Your task to perform on an android device: Is it going to rain this weekend? Image 0: 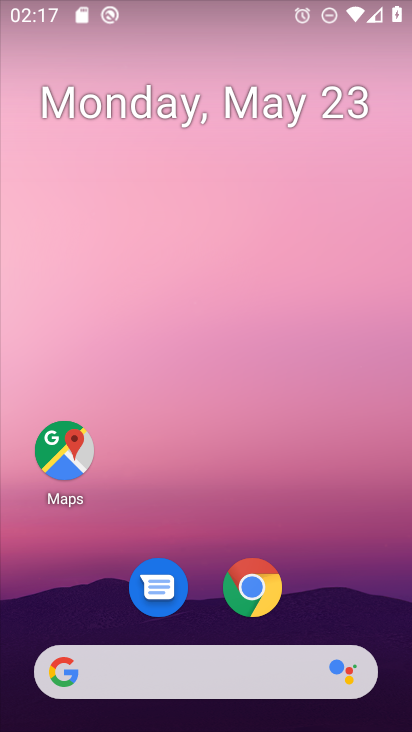
Step 0: drag from (338, 610) to (357, 209)
Your task to perform on an android device: Is it going to rain this weekend? Image 1: 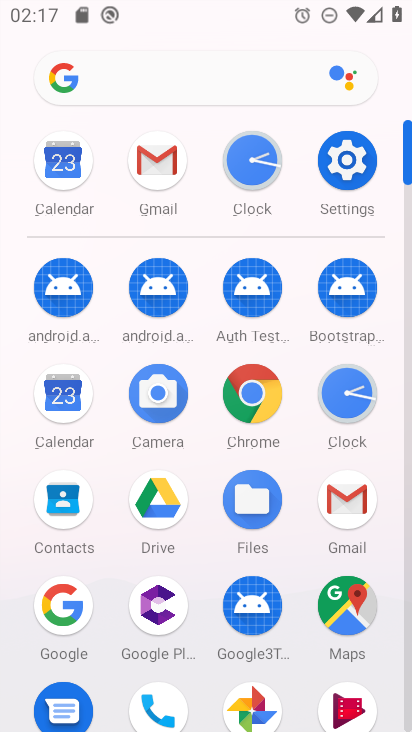
Step 1: click (75, 193)
Your task to perform on an android device: Is it going to rain this weekend? Image 2: 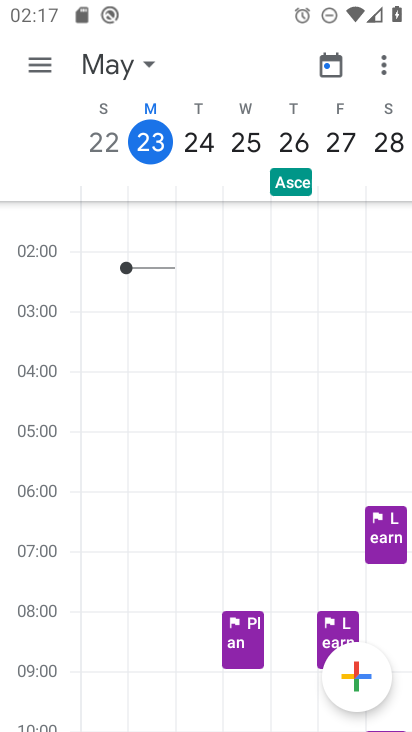
Step 2: task complete